Your task to perform on an android device: Go to Maps Image 0: 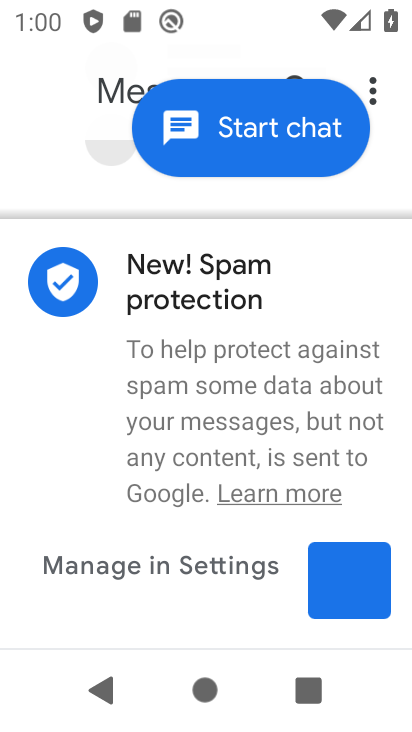
Step 0: press home button
Your task to perform on an android device: Go to Maps Image 1: 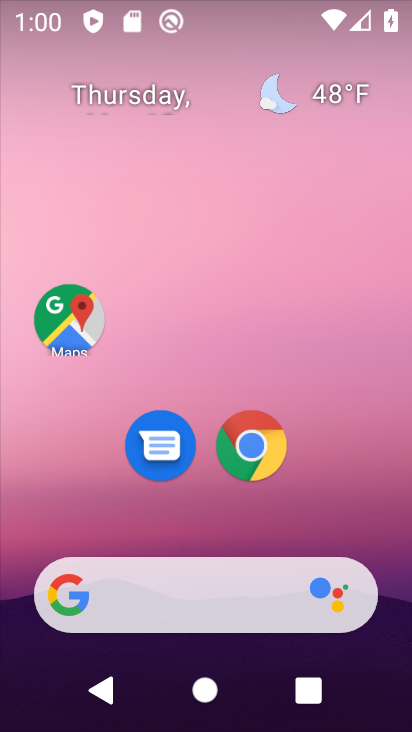
Step 1: click (74, 319)
Your task to perform on an android device: Go to Maps Image 2: 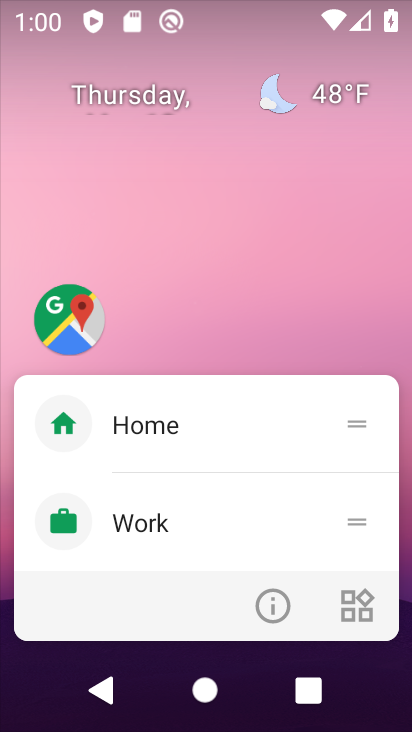
Step 2: click (74, 318)
Your task to perform on an android device: Go to Maps Image 3: 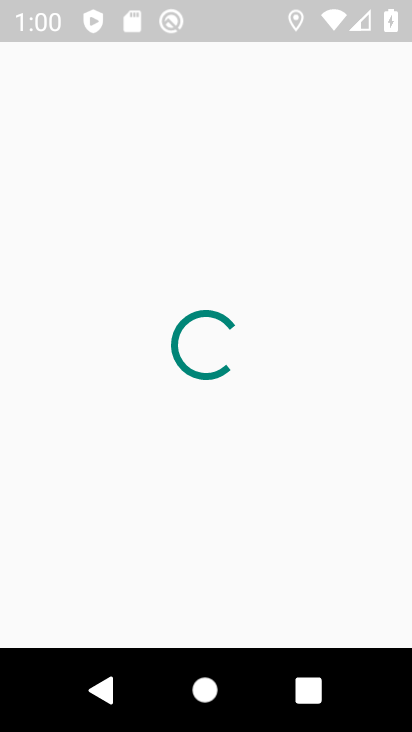
Step 3: click (53, 92)
Your task to perform on an android device: Go to Maps Image 4: 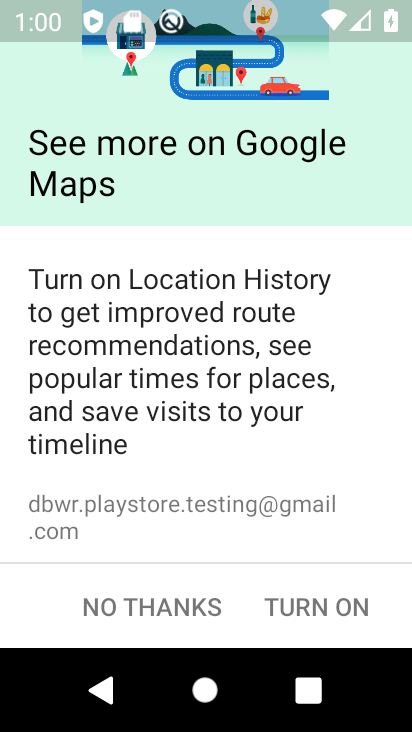
Step 4: click (298, 609)
Your task to perform on an android device: Go to Maps Image 5: 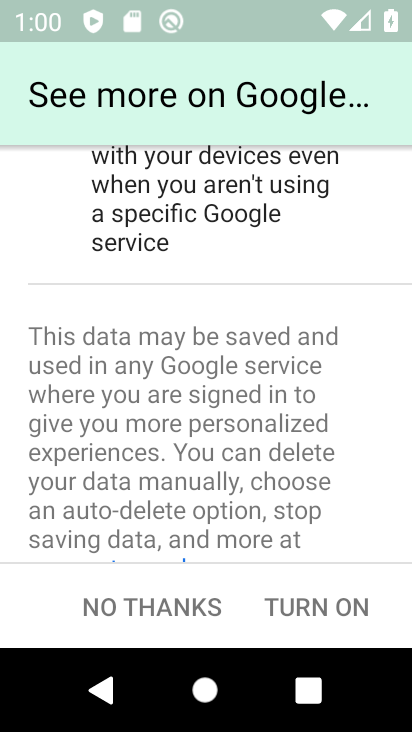
Step 5: click (299, 606)
Your task to perform on an android device: Go to Maps Image 6: 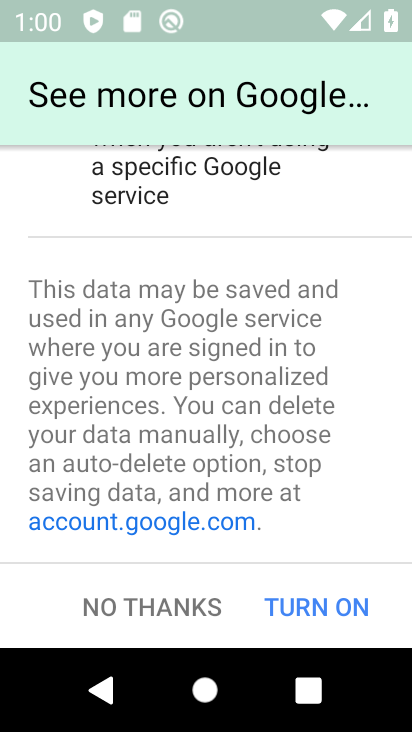
Step 6: click (299, 606)
Your task to perform on an android device: Go to Maps Image 7: 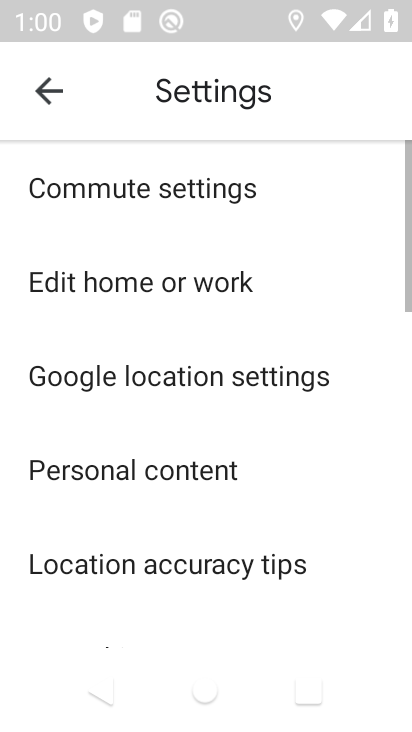
Step 7: click (59, 84)
Your task to perform on an android device: Go to Maps Image 8: 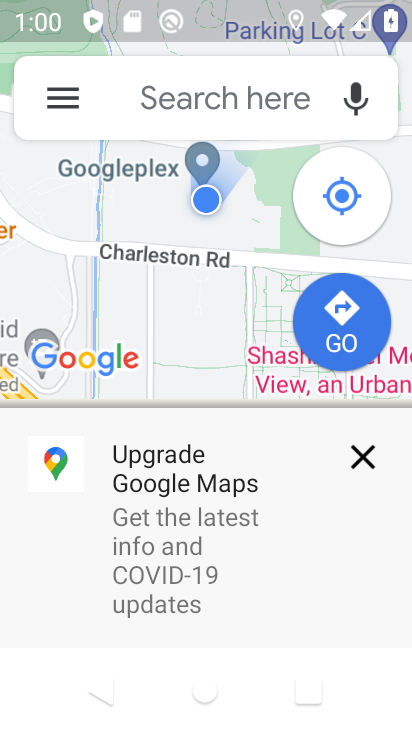
Step 8: task complete